Your task to perform on an android device: Open network settings Image 0: 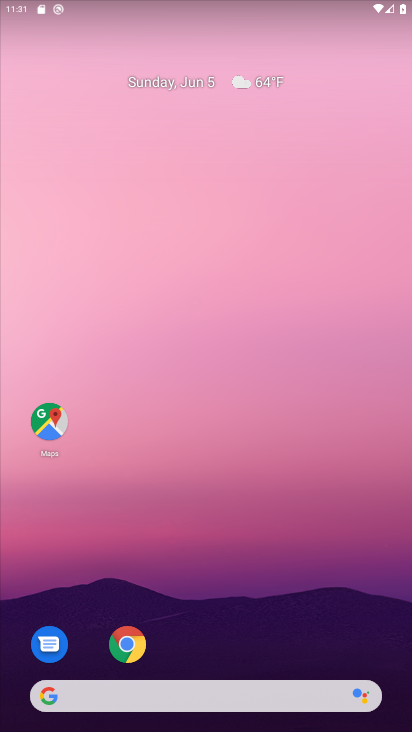
Step 0: drag from (208, 727) to (180, 259)
Your task to perform on an android device: Open network settings Image 1: 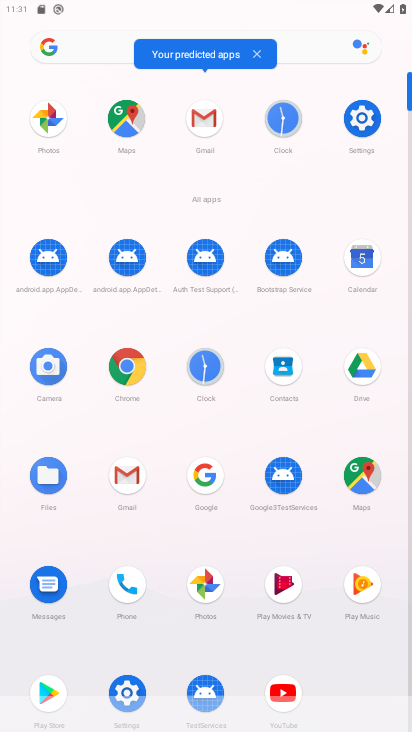
Step 1: click (134, 677)
Your task to perform on an android device: Open network settings Image 2: 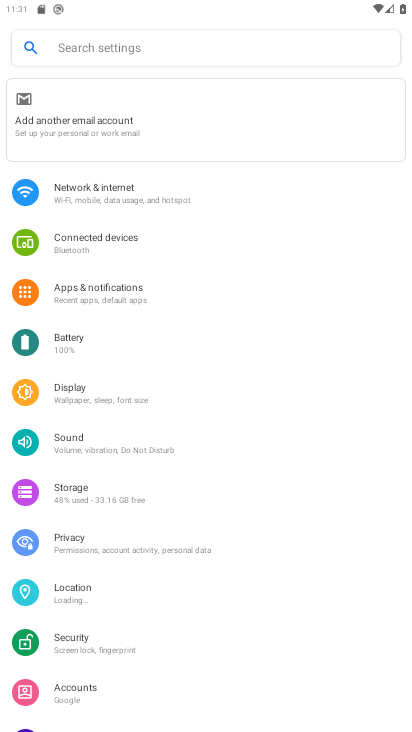
Step 2: click (136, 194)
Your task to perform on an android device: Open network settings Image 3: 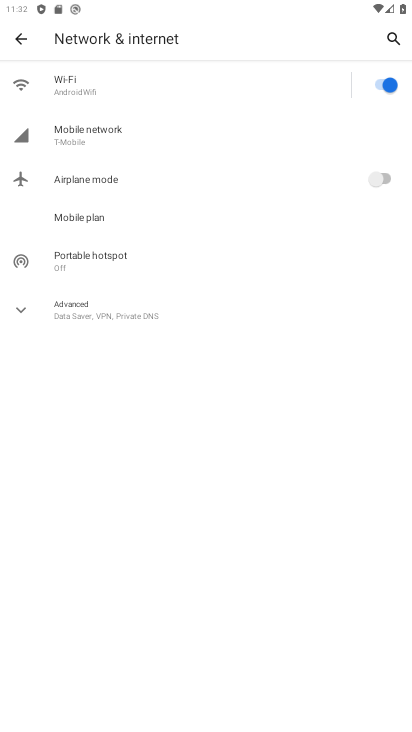
Step 3: task complete